Your task to perform on an android device: View the shopping cart on bestbuy. Search for acer nitro on bestbuy, select the first entry, and add it to the cart. Image 0: 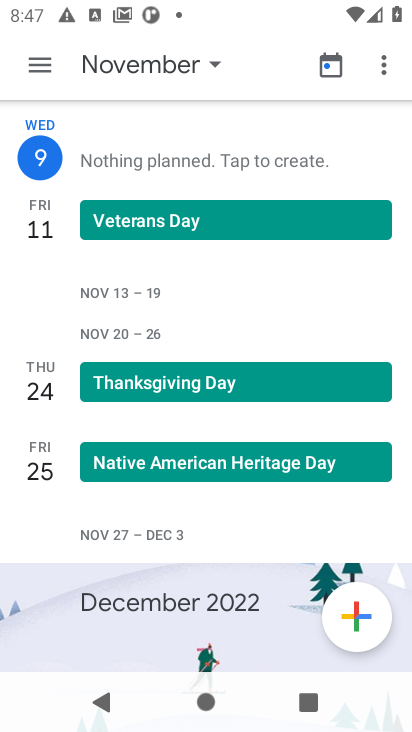
Step 0: press home button
Your task to perform on an android device: View the shopping cart on bestbuy. Search for acer nitro on bestbuy, select the first entry, and add it to the cart. Image 1: 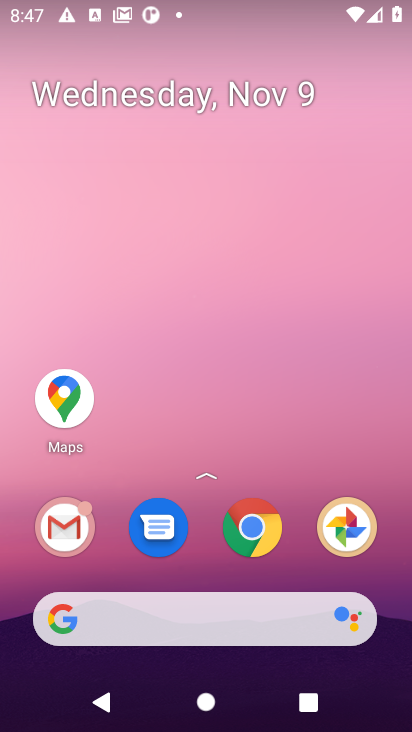
Step 1: click (247, 532)
Your task to perform on an android device: View the shopping cart on bestbuy. Search for acer nitro on bestbuy, select the first entry, and add it to the cart. Image 2: 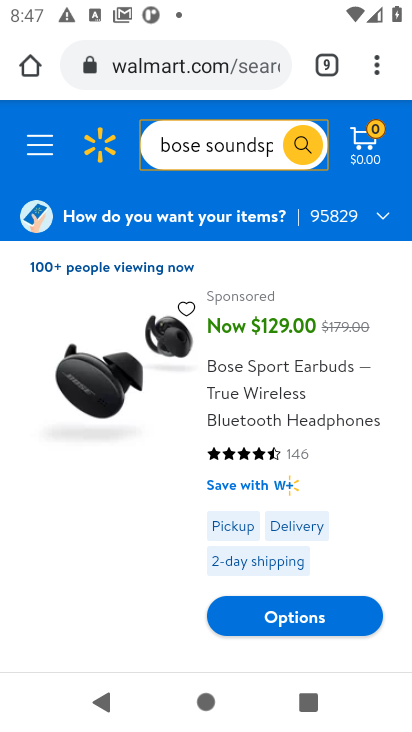
Step 2: click (190, 68)
Your task to perform on an android device: View the shopping cart on bestbuy. Search for acer nitro on bestbuy, select the first entry, and add it to the cart. Image 3: 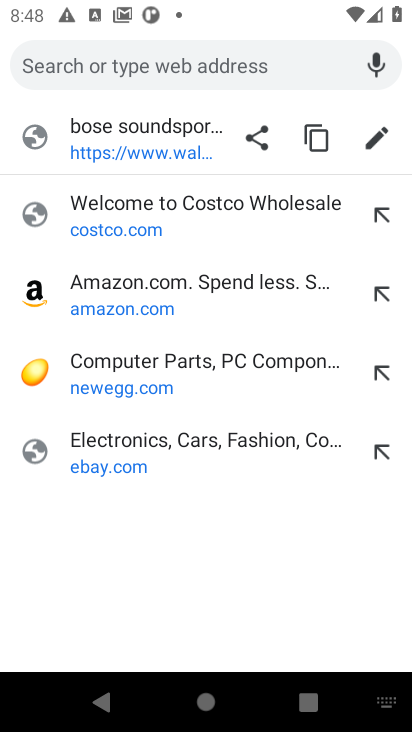
Step 3: type "bestbuy.com"
Your task to perform on an android device: View the shopping cart on bestbuy. Search for acer nitro on bestbuy, select the first entry, and add it to the cart. Image 4: 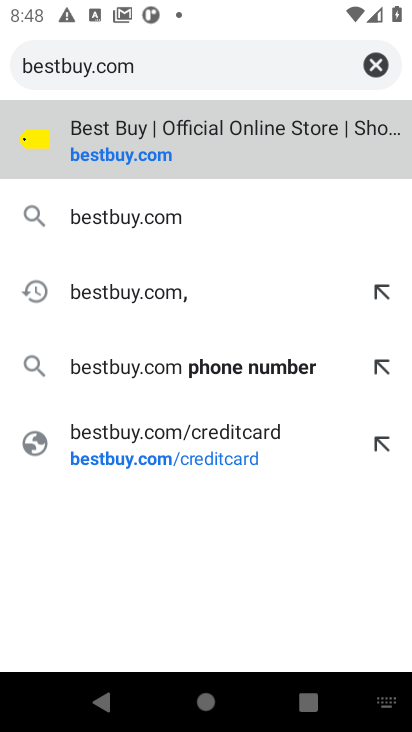
Step 4: click (157, 159)
Your task to perform on an android device: View the shopping cart on bestbuy. Search for acer nitro on bestbuy, select the first entry, and add it to the cart. Image 5: 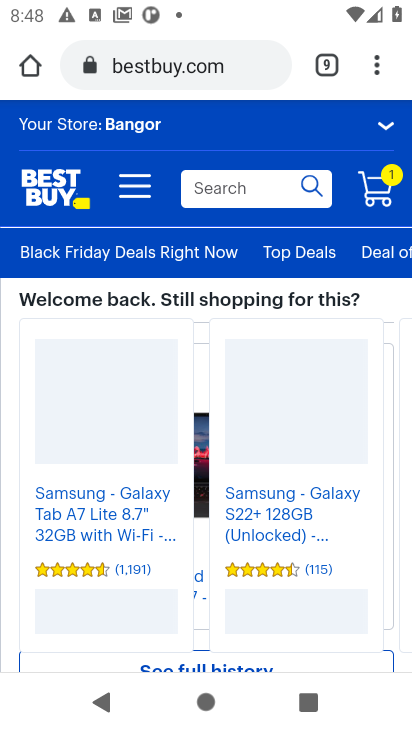
Step 5: click (380, 189)
Your task to perform on an android device: View the shopping cart on bestbuy. Search for acer nitro on bestbuy, select the first entry, and add it to the cart. Image 6: 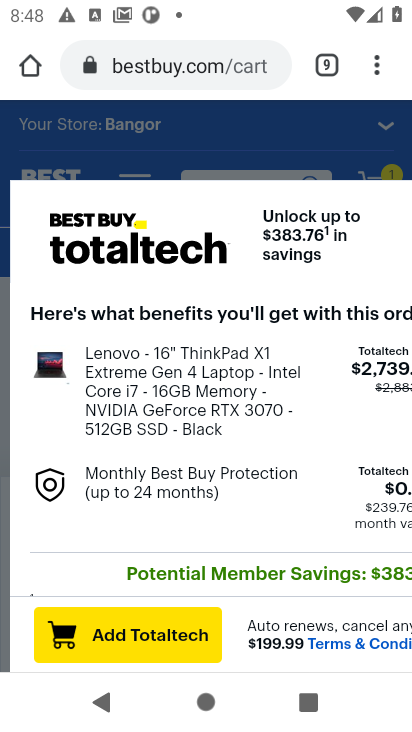
Step 6: drag from (273, 603) to (287, 297)
Your task to perform on an android device: View the shopping cart on bestbuy. Search for acer nitro on bestbuy, select the first entry, and add it to the cart. Image 7: 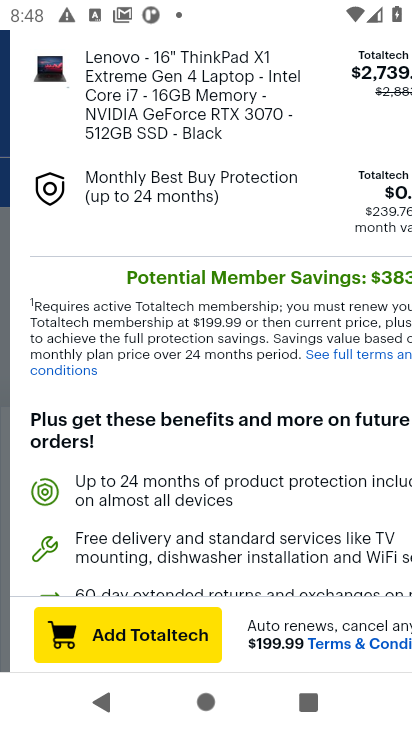
Step 7: drag from (270, 516) to (281, 230)
Your task to perform on an android device: View the shopping cart on bestbuy. Search for acer nitro on bestbuy, select the first entry, and add it to the cart. Image 8: 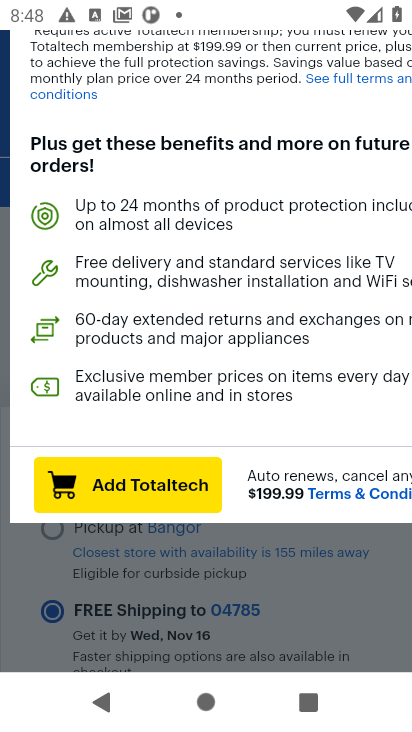
Step 8: click (387, 568)
Your task to perform on an android device: View the shopping cart on bestbuy. Search for acer nitro on bestbuy, select the first entry, and add it to the cart. Image 9: 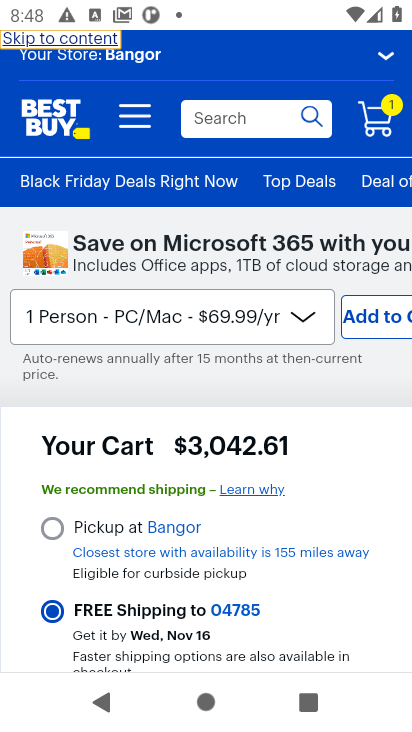
Step 9: click (251, 104)
Your task to perform on an android device: View the shopping cart on bestbuy. Search for acer nitro on bestbuy, select the first entry, and add it to the cart. Image 10: 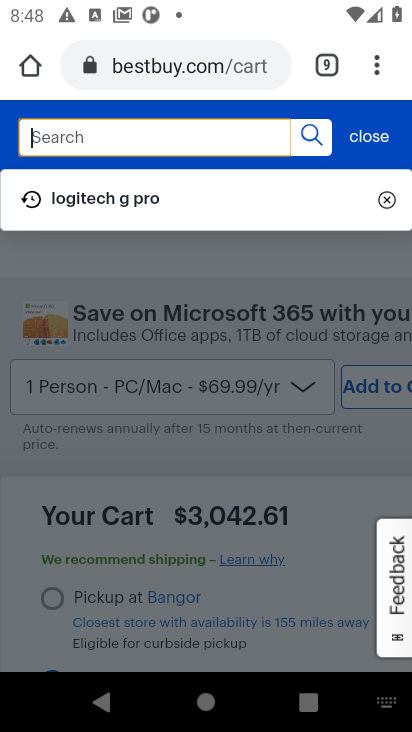
Step 10: type "acer nitro"
Your task to perform on an android device: View the shopping cart on bestbuy. Search for acer nitro on bestbuy, select the first entry, and add it to the cart. Image 11: 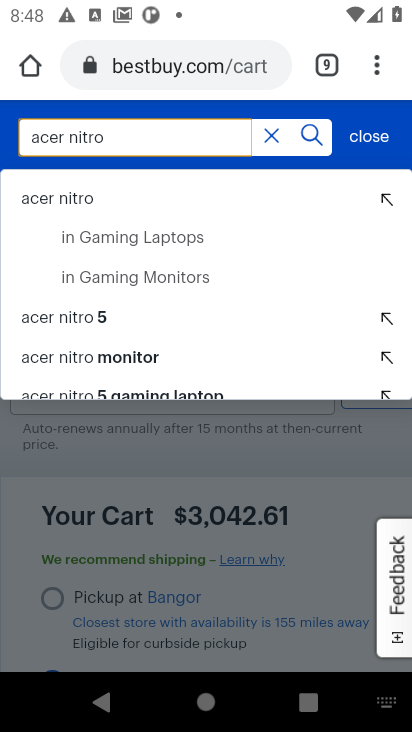
Step 11: click (69, 201)
Your task to perform on an android device: View the shopping cart on bestbuy. Search for acer nitro on bestbuy, select the first entry, and add it to the cart. Image 12: 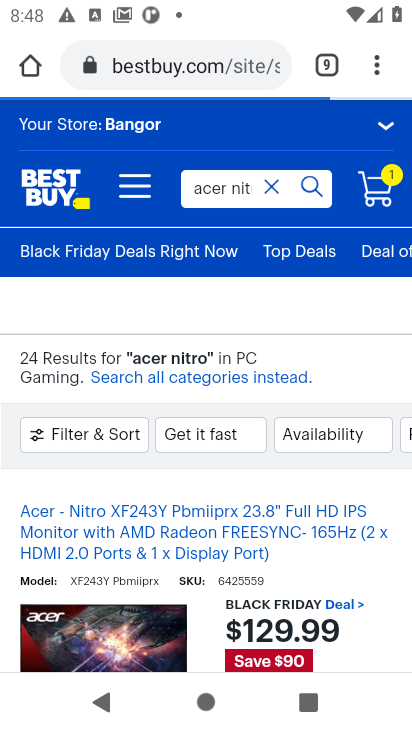
Step 12: drag from (221, 549) to (242, 326)
Your task to perform on an android device: View the shopping cart on bestbuy. Search for acer nitro on bestbuy, select the first entry, and add it to the cart. Image 13: 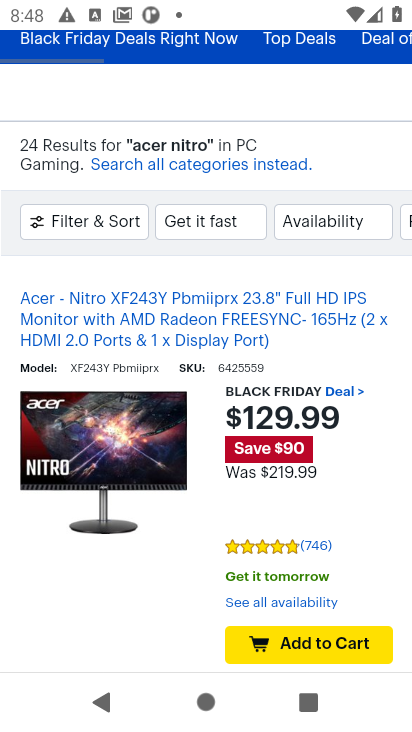
Step 13: click (314, 599)
Your task to perform on an android device: View the shopping cart on bestbuy. Search for acer nitro on bestbuy, select the first entry, and add it to the cart. Image 14: 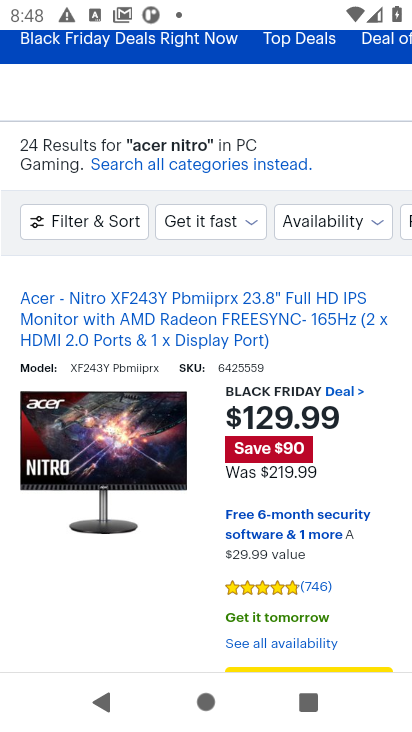
Step 14: drag from (308, 629) to (313, 463)
Your task to perform on an android device: View the shopping cart on bestbuy. Search for acer nitro on bestbuy, select the first entry, and add it to the cart. Image 15: 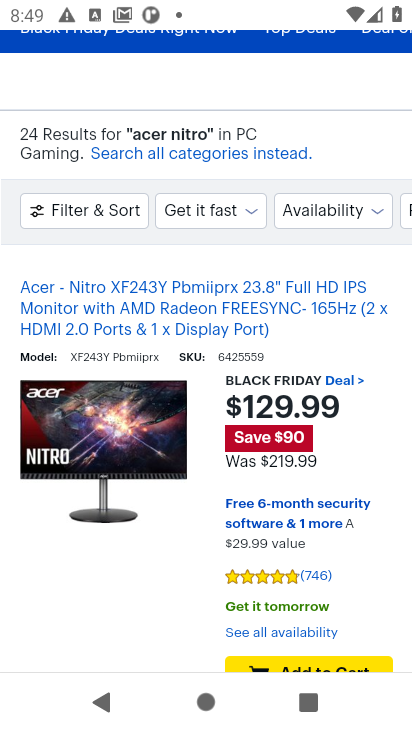
Step 15: click (306, 665)
Your task to perform on an android device: View the shopping cart on bestbuy. Search for acer nitro on bestbuy, select the first entry, and add it to the cart. Image 16: 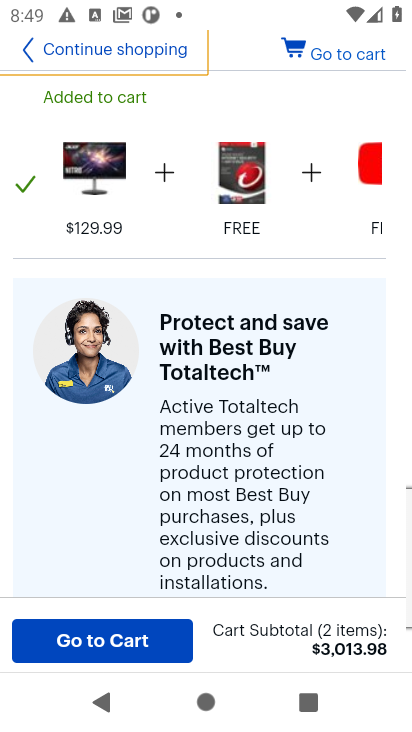
Step 16: task complete